Your task to perform on an android device: Show me popular games on the Play Store Image 0: 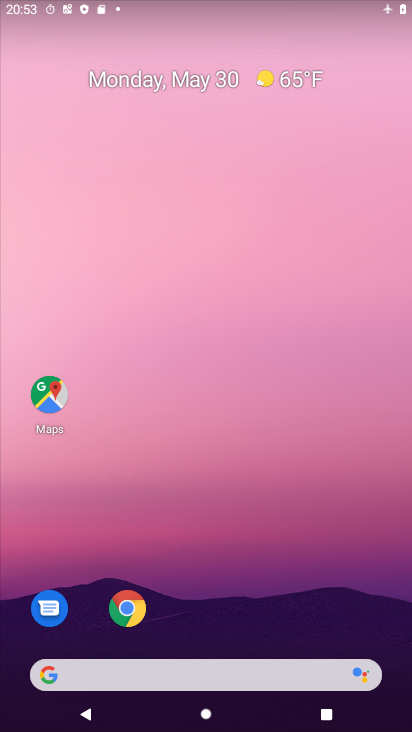
Step 0: drag from (272, 564) to (254, 158)
Your task to perform on an android device: Show me popular games on the Play Store Image 1: 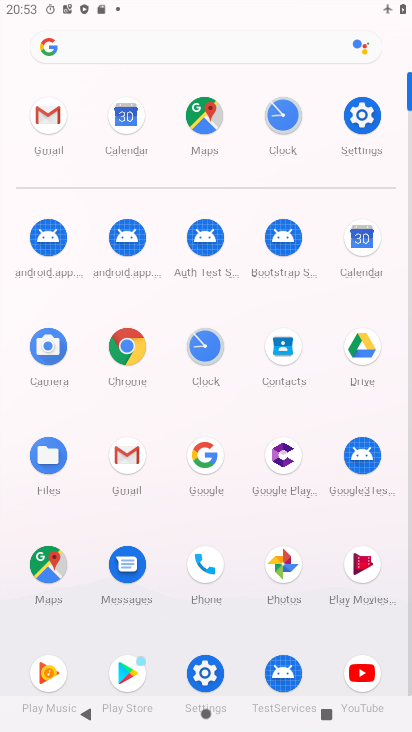
Step 1: click (120, 664)
Your task to perform on an android device: Show me popular games on the Play Store Image 2: 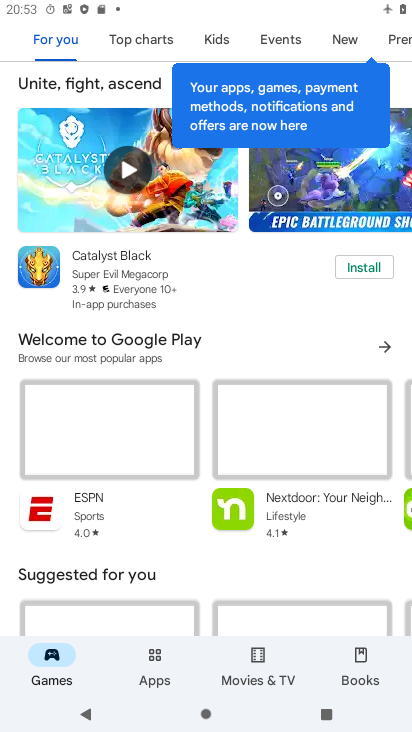
Step 2: click (125, 39)
Your task to perform on an android device: Show me popular games on the Play Store Image 3: 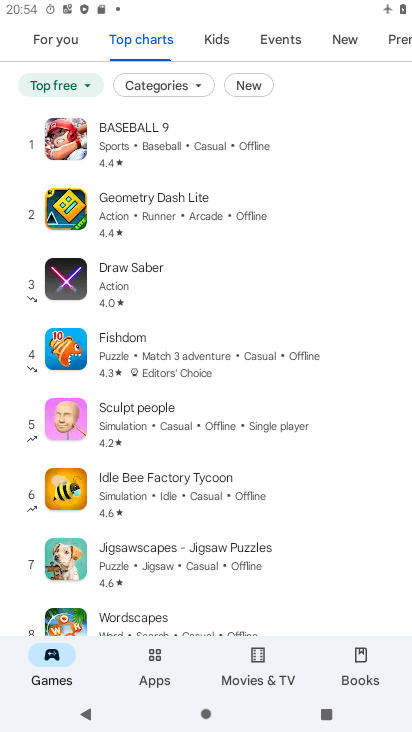
Step 3: task complete